Your task to perform on an android device: toggle pop-ups in chrome Image 0: 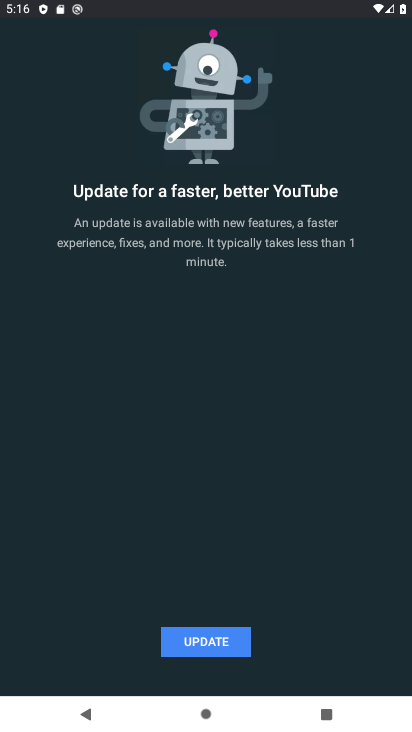
Step 0: press back button
Your task to perform on an android device: toggle pop-ups in chrome Image 1: 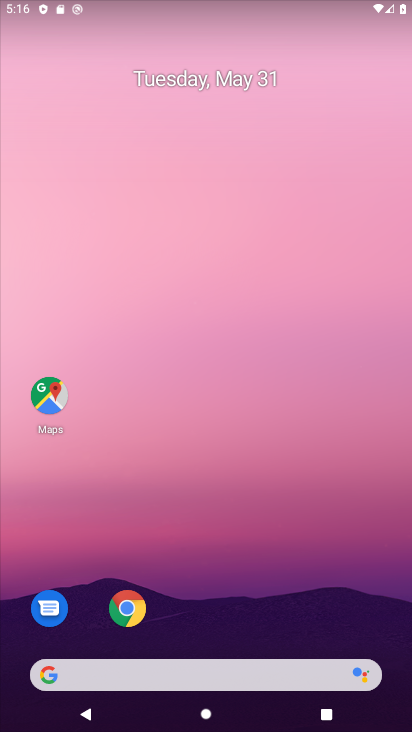
Step 1: click (127, 605)
Your task to perform on an android device: toggle pop-ups in chrome Image 2: 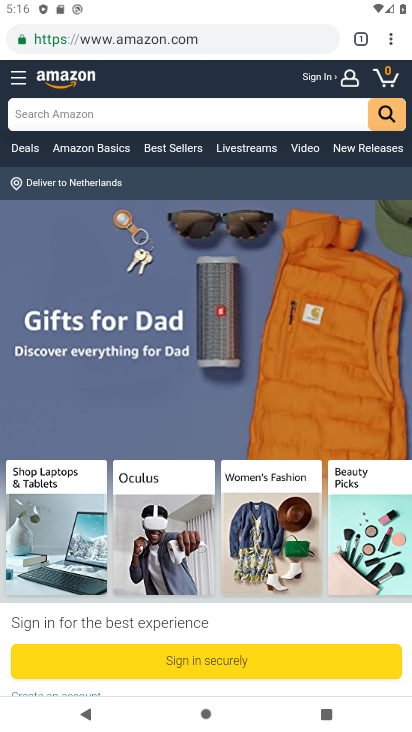
Step 2: click (393, 41)
Your task to perform on an android device: toggle pop-ups in chrome Image 3: 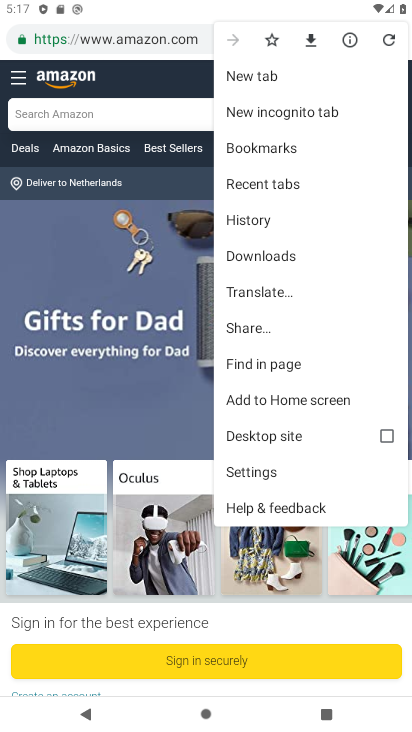
Step 3: click (268, 468)
Your task to perform on an android device: toggle pop-ups in chrome Image 4: 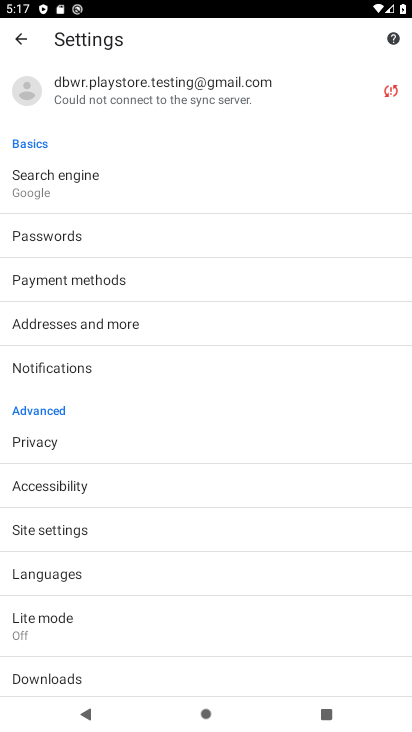
Step 4: click (77, 529)
Your task to perform on an android device: toggle pop-ups in chrome Image 5: 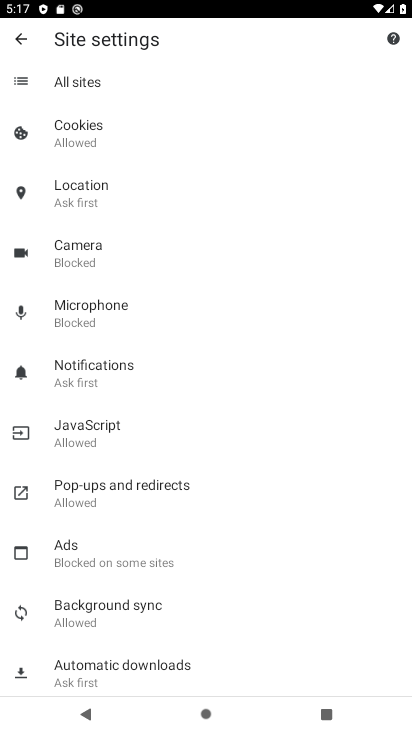
Step 5: click (118, 485)
Your task to perform on an android device: toggle pop-ups in chrome Image 6: 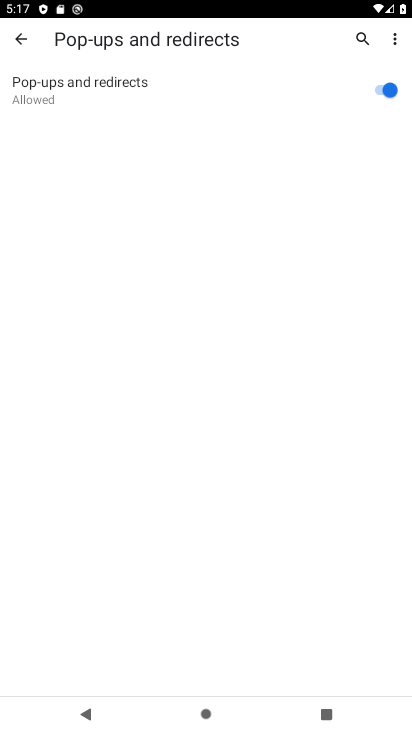
Step 6: click (390, 84)
Your task to perform on an android device: toggle pop-ups in chrome Image 7: 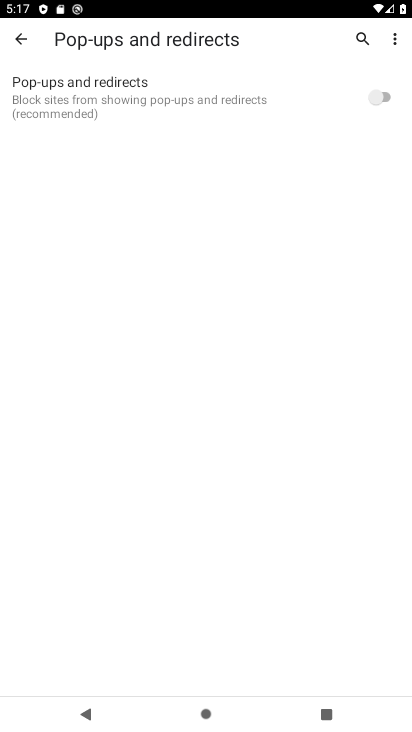
Step 7: task complete